Your task to perform on an android device: open app "DoorDash - Dasher" Image 0: 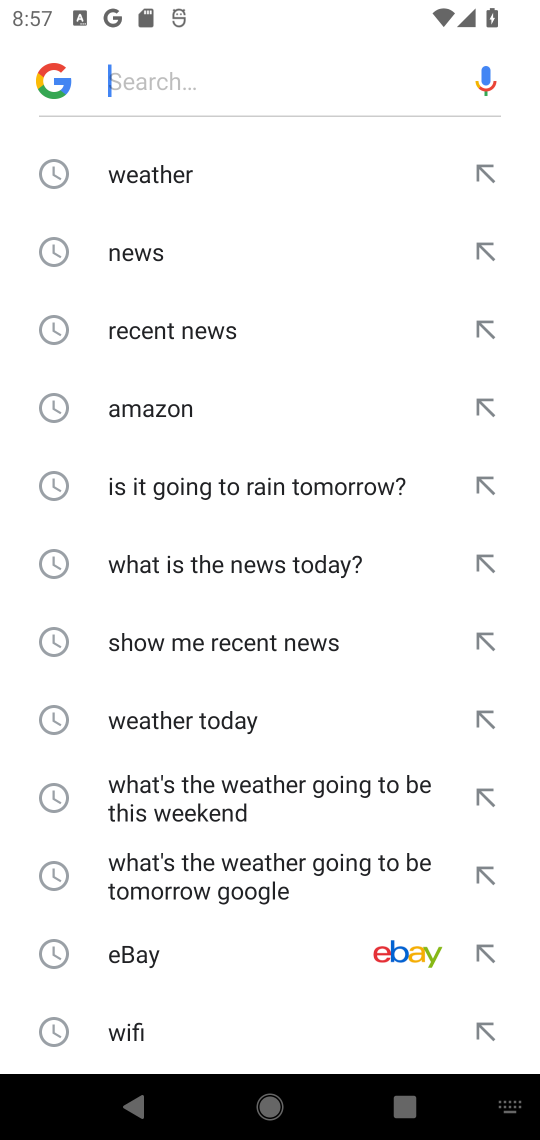
Step 0: press home button
Your task to perform on an android device: open app "DoorDash - Dasher" Image 1: 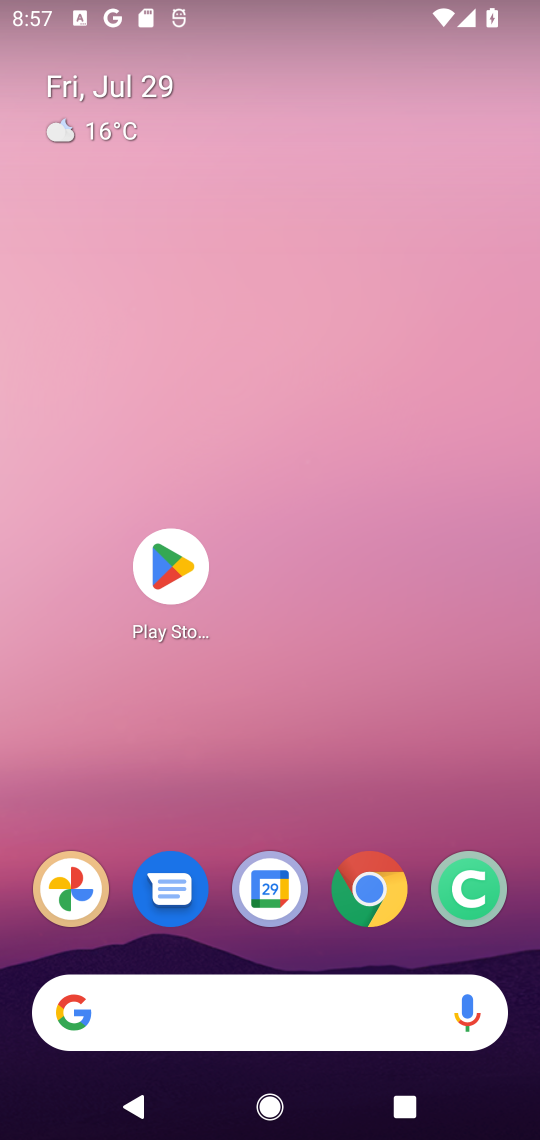
Step 1: click (180, 549)
Your task to perform on an android device: open app "DoorDash - Dasher" Image 2: 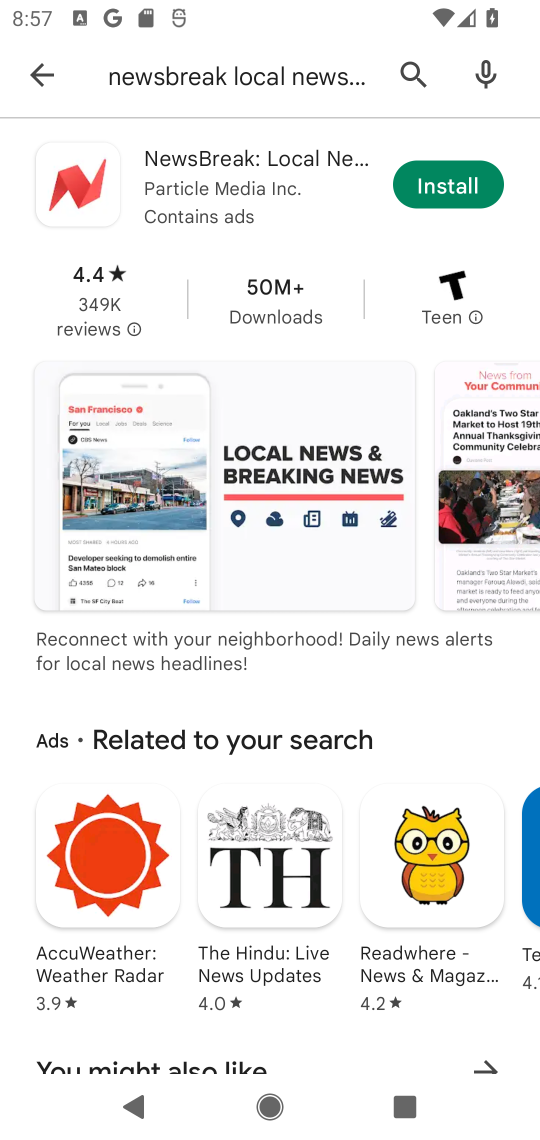
Step 2: click (411, 74)
Your task to perform on an android device: open app "DoorDash - Dasher" Image 3: 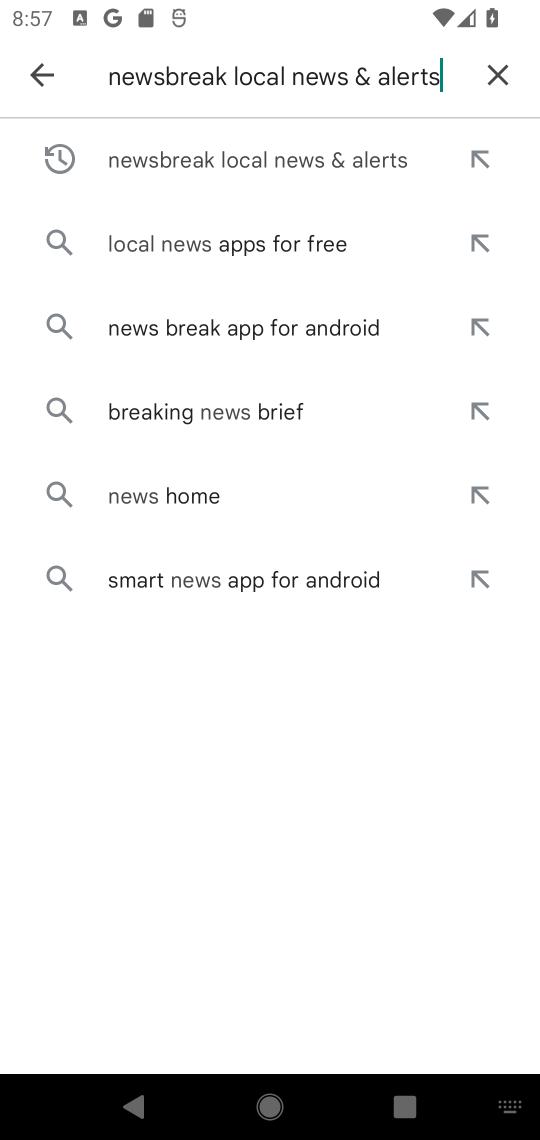
Step 3: click (492, 79)
Your task to perform on an android device: open app "DoorDash - Dasher" Image 4: 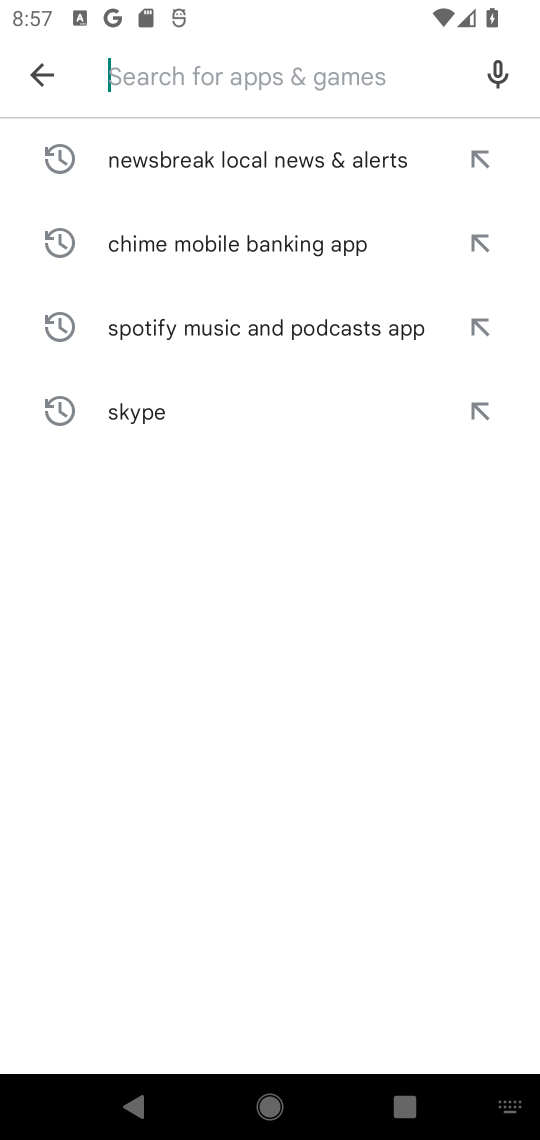
Step 4: type "DoorDash - Dasher"
Your task to perform on an android device: open app "DoorDash - Dasher" Image 5: 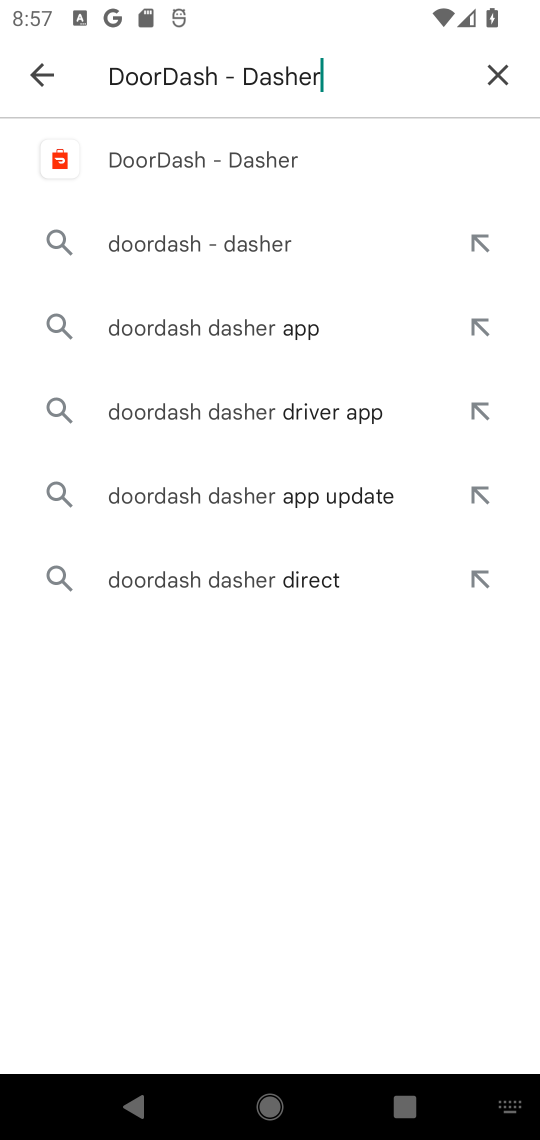
Step 5: click (234, 156)
Your task to perform on an android device: open app "DoorDash - Dasher" Image 6: 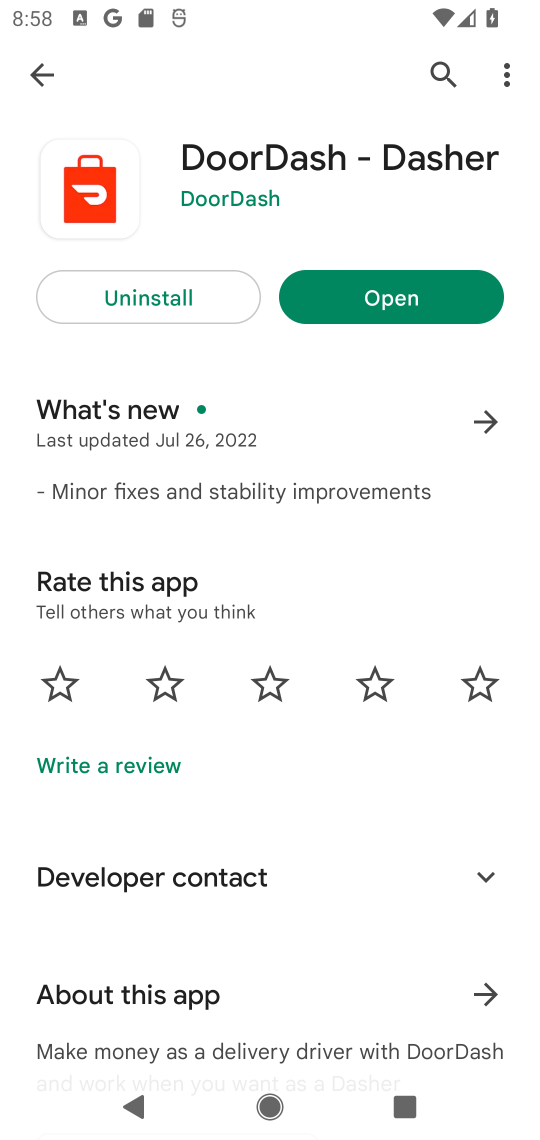
Step 6: click (358, 287)
Your task to perform on an android device: open app "DoorDash - Dasher" Image 7: 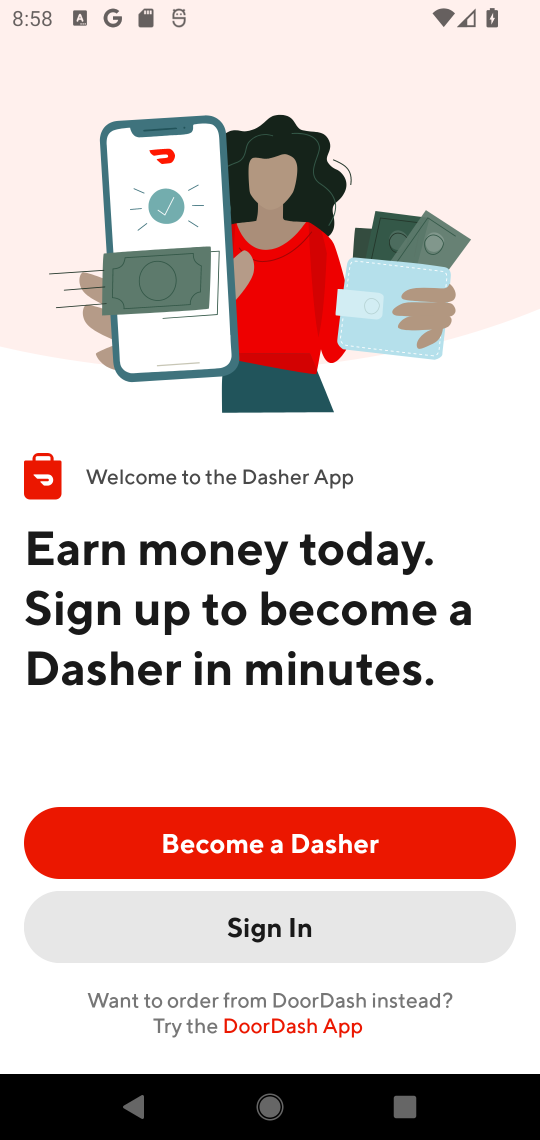
Step 7: task complete